Your task to perform on an android device: change keyboard looks Image 0: 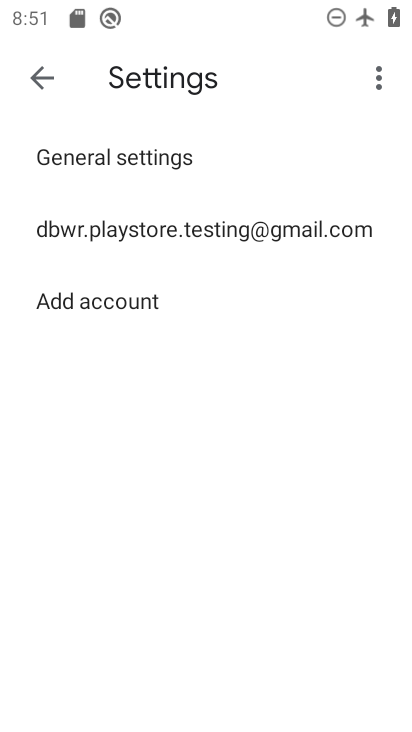
Step 0: drag from (302, 698) to (253, 153)
Your task to perform on an android device: change keyboard looks Image 1: 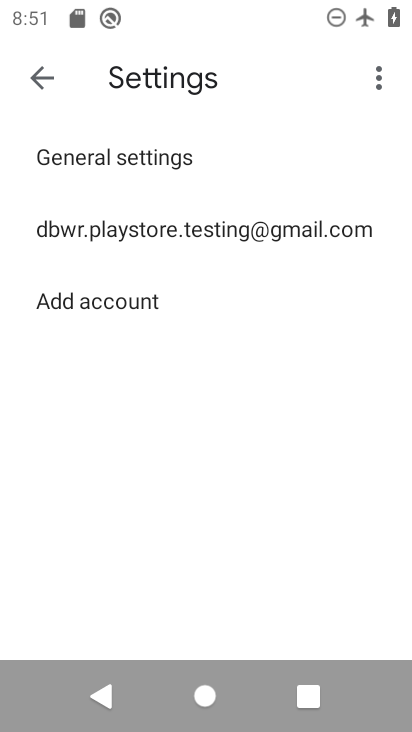
Step 1: click (41, 81)
Your task to perform on an android device: change keyboard looks Image 2: 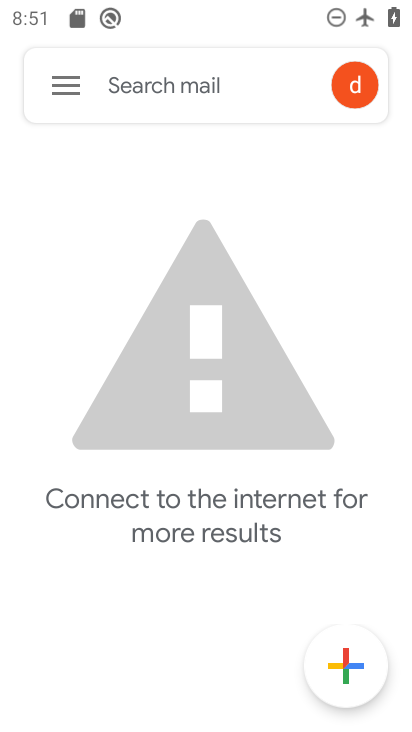
Step 2: press home button
Your task to perform on an android device: change keyboard looks Image 3: 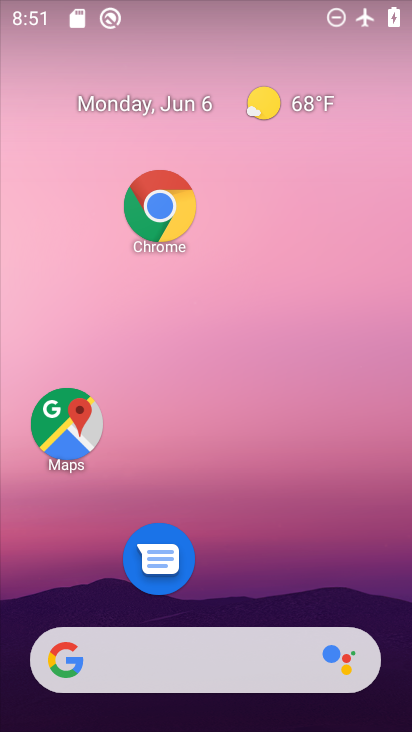
Step 3: drag from (238, 384) to (219, 209)
Your task to perform on an android device: change keyboard looks Image 4: 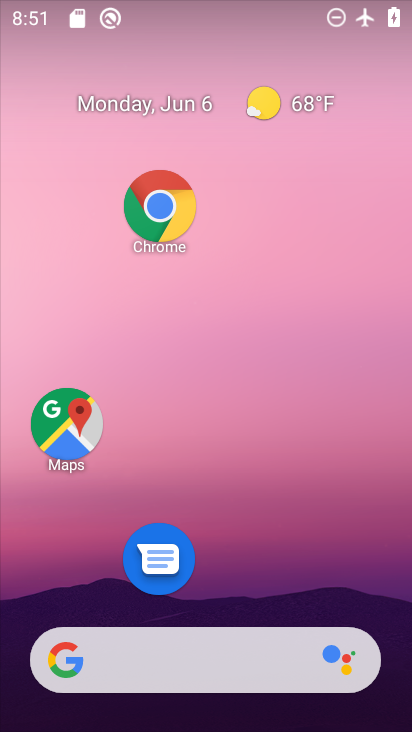
Step 4: drag from (289, 505) to (254, 163)
Your task to perform on an android device: change keyboard looks Image 5: 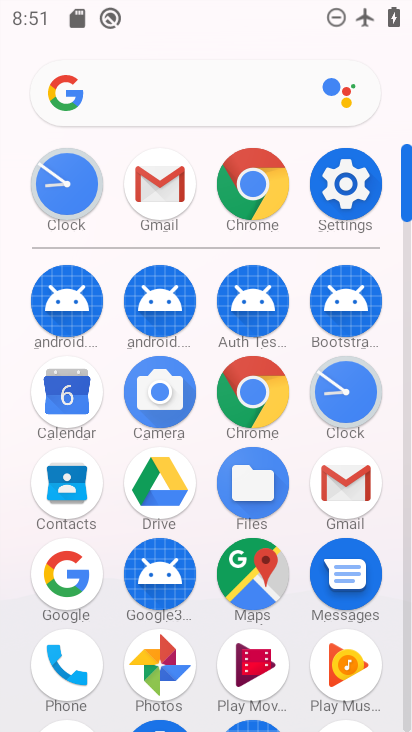
Step 5: click (350, 178)
Your task to perform on an android device: change keyboard looks Image 6: 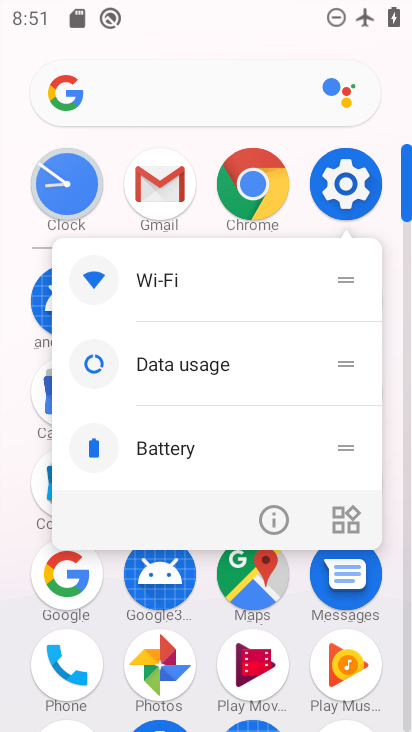
Step 6: click (347, 176)
Your task to perform on an android device: change keyboard looks Image 7: 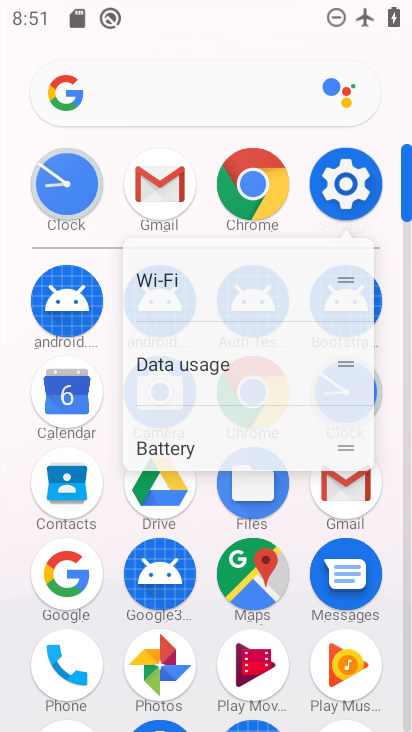
Step 7: click (348, 175)
Your task to perform on an android device: change keyboard looks Image 8: 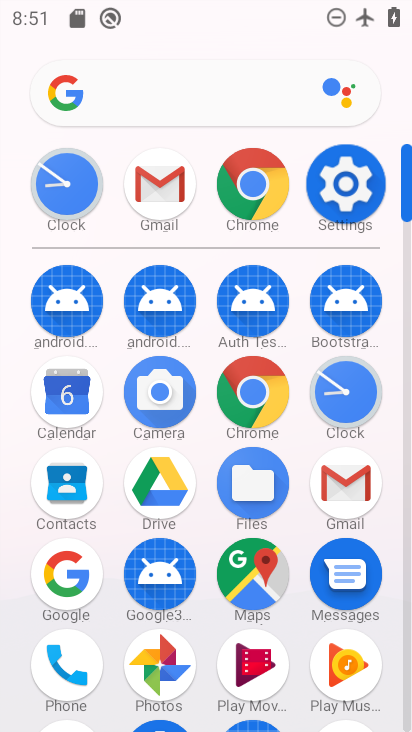
Step 8: click (349, 176)
Your task to perform on an android device: change keyboard looks Image 9: 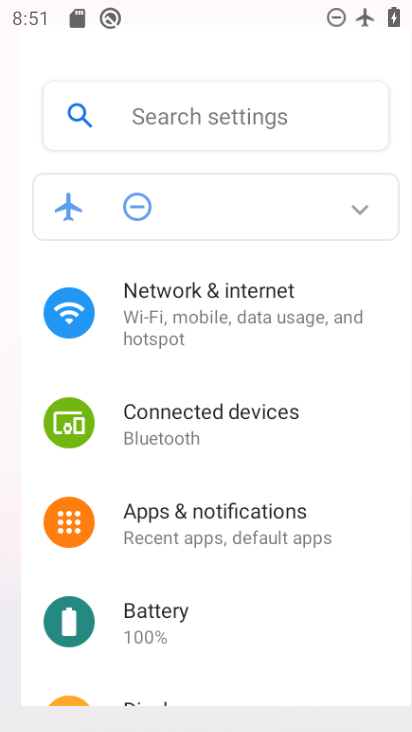
Step 9: click (347, 182)
Your task to perform on an android device: change keyboard looks Image 10: 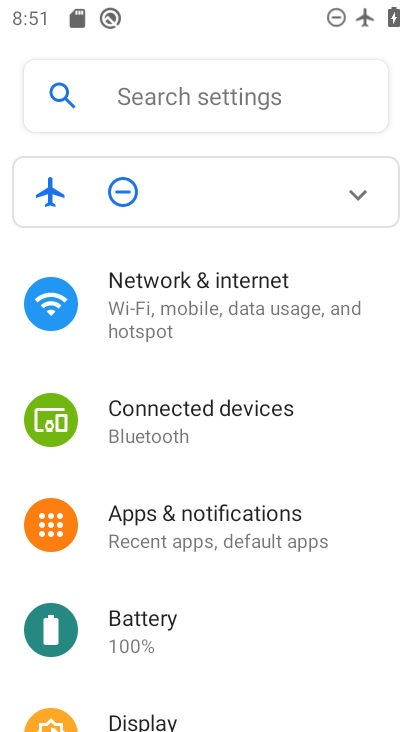
Step 10: click (348, 188)
Your task to perform on an android device: change keyboard looks Image 11: 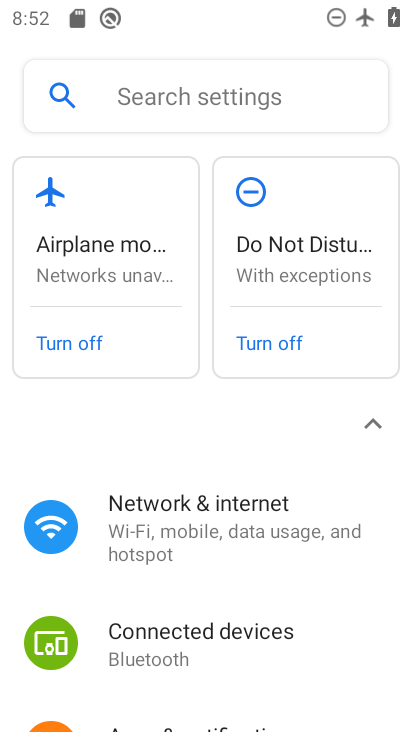
Step 11: drag from (221, 530) to (215, 187)
Your task to perform on an android device: change keyboard looks Image 12: 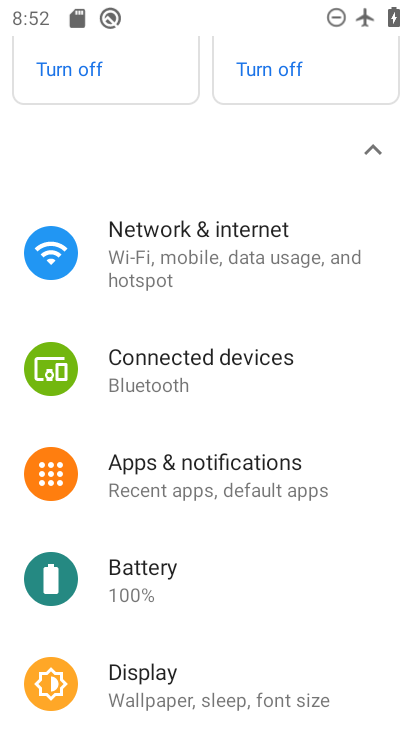
Step 12: drag from (221, 565) to (186, 251)
Your task to perform on an android device: change keyboard looks Image 13: 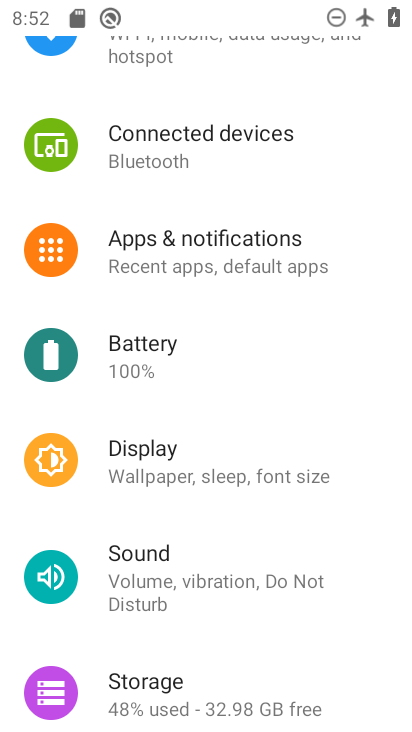
Step 13: drag from (198, 568) to (217, 207)
Your task to perform on an android device: change keyboard looks Image 14: 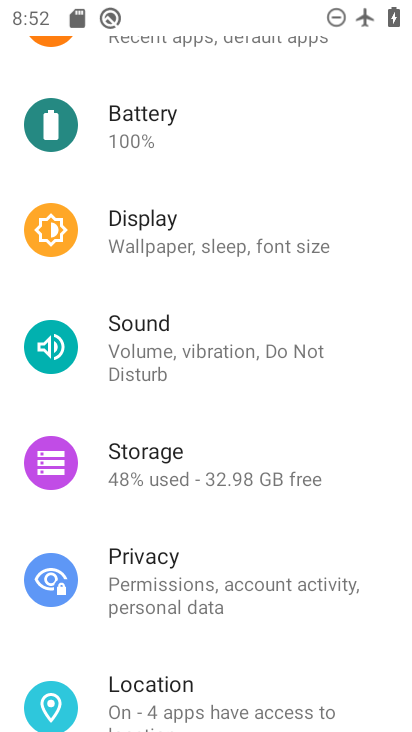
Step 14: drag from (229, 525) to (196, 162)
Your task to perform on an android device: change keyboard looks Image 15: 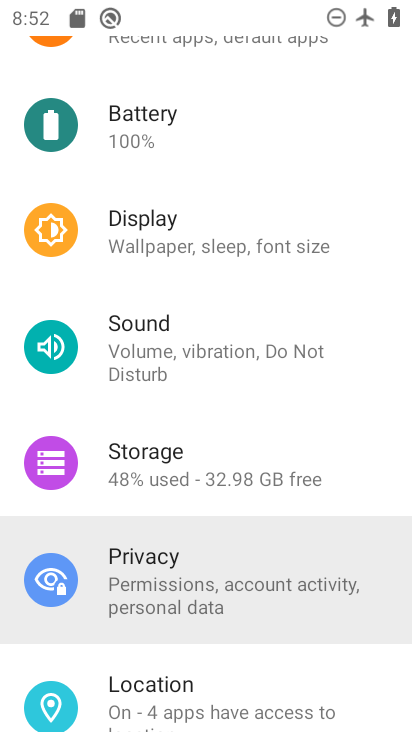
Step 15: drag from (192, 520) to (216, 237)
Your task to perform on an android device: change keyboard looks Image 16: 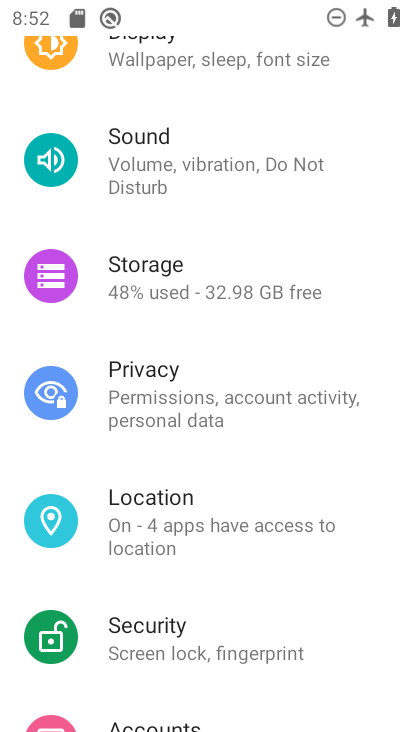
Step 16: drag from (200, 636) to (243, 259)
Your task to perform on an android device: change keyboard looks Image 17: 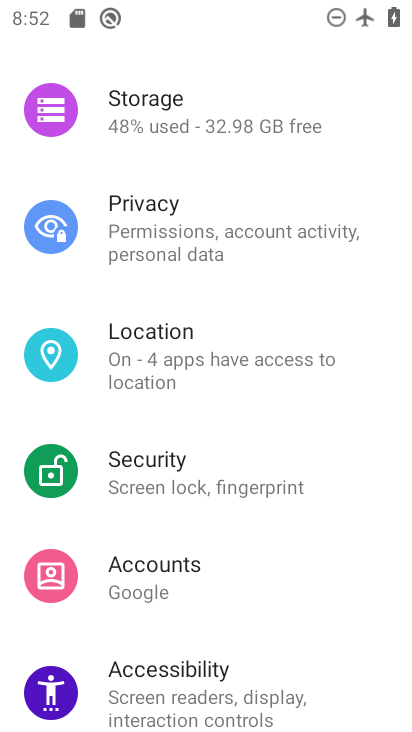
Step 17: drag from (243, 546) to (223, 186)
Your task to perform on an android device: change keyboard looks Image 18: 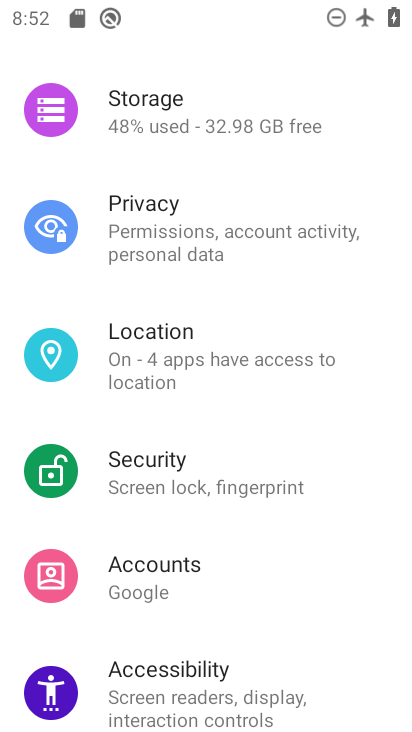
Step 18: drag from (264, 606) to (223, 242)
Your task to perform on an android device: change keyboard looks Image 19: 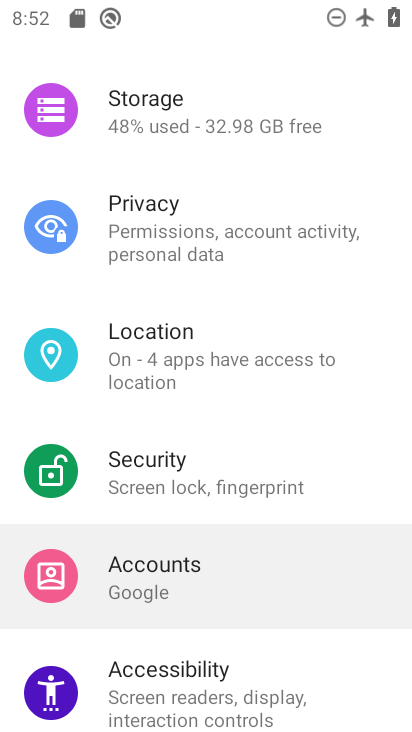
Step 19: click (134, 273)
Your task to perform on an android device: change keyboard looks Image 20: 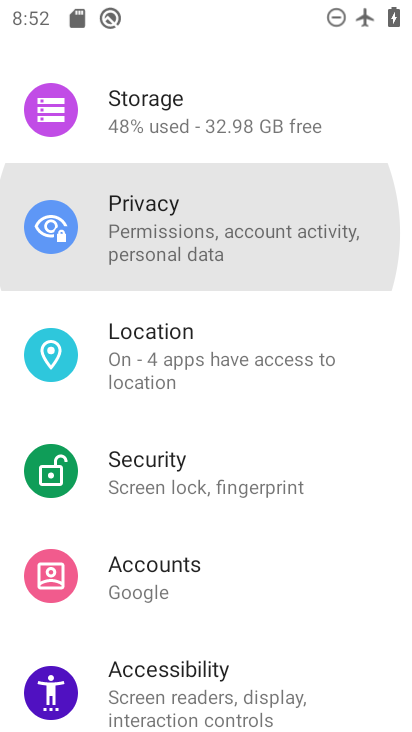
Step 20: drag from (212, 598) to (223, 243)
Your task to perform on an android device: change keyboard looks Image 21: 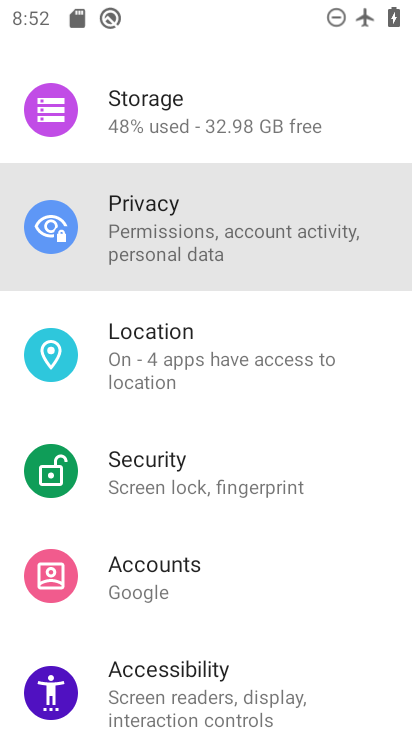
Step 21: drag from (241, 599) to (239, 252)
Your task to perform on an android device: change keyboard looks Image 22: 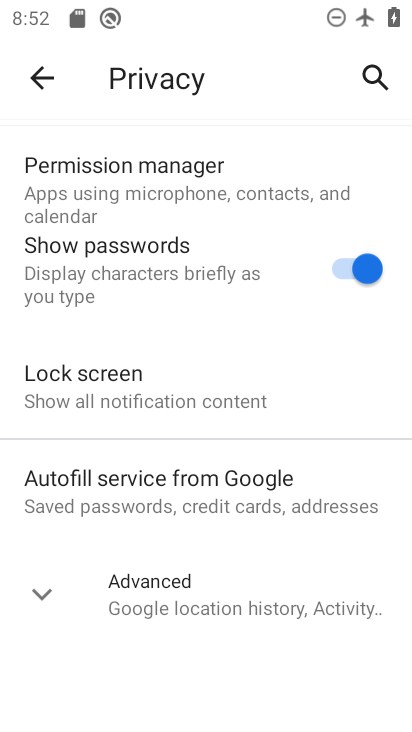
Step 22: drag from (271, 551) to (236, 366)
Your task to perform on an android device: change keyboard looks Image 23: 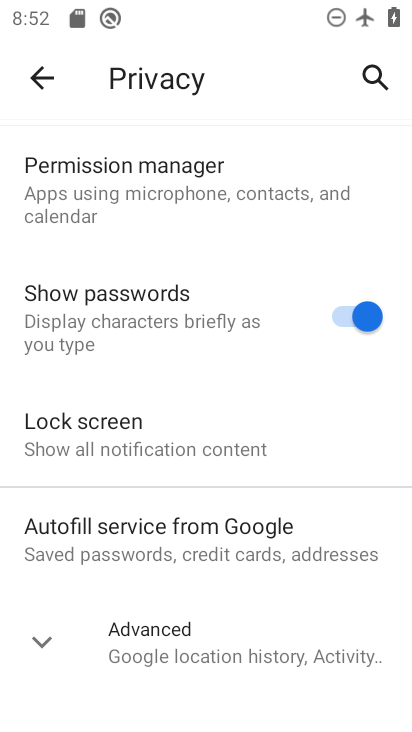
Step 23: click (35, 86)
Your task to perform on an android device: change keyboard looks Image 24: 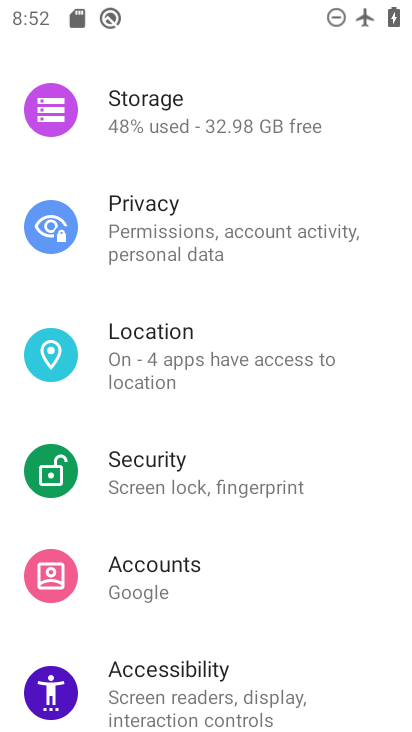
Step 24: drag from (189, 161) to (281, 491)
Your task to perform on an android device: change keyboard looks Image 25: 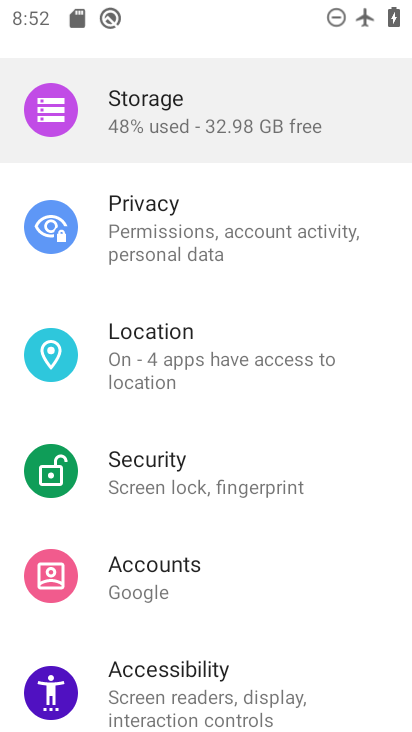
Step 25: drag from (186, 181) to (247, 489)
Your task to perform on an android device: change keyboard looks Image 26: 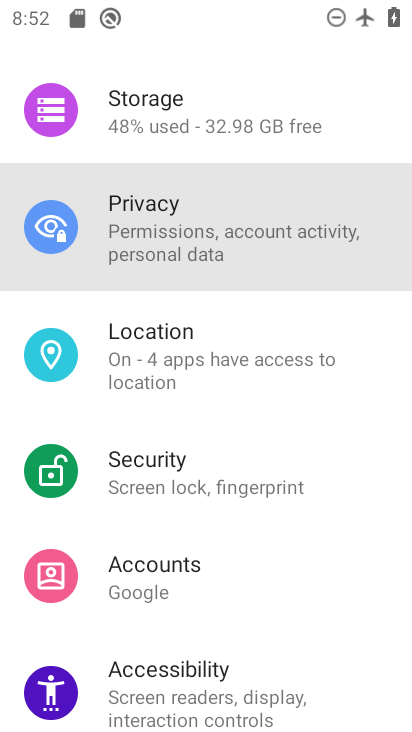
Step 26: drag from (220, 225) to (260, 544)
Your task to perform on an android device: change keyboard looks Image 27: 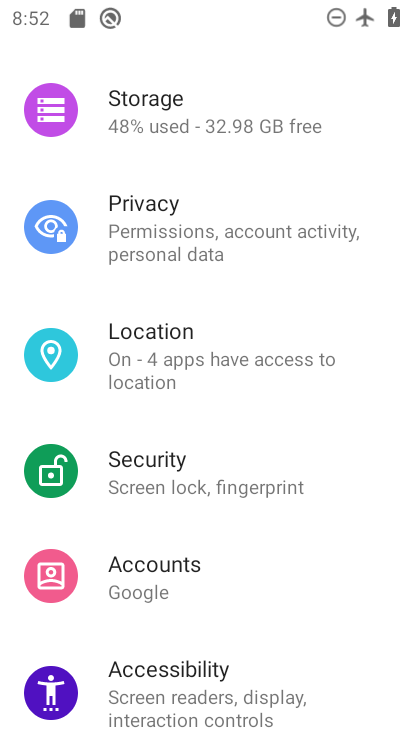
Step 27: drag from (229, 541) to (173, 172)
Your task to perform on an android device: change keyboard looks Image 28: 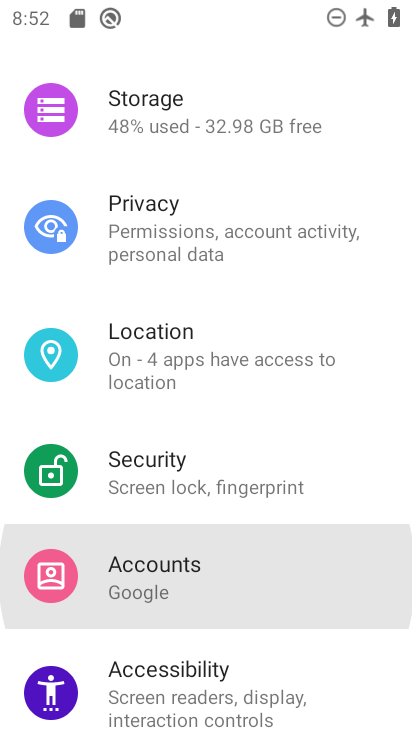
Step 28: drag from (224, 566) to (173, 277)
Your task to perform on an android device: change keyboard looks Image 29: 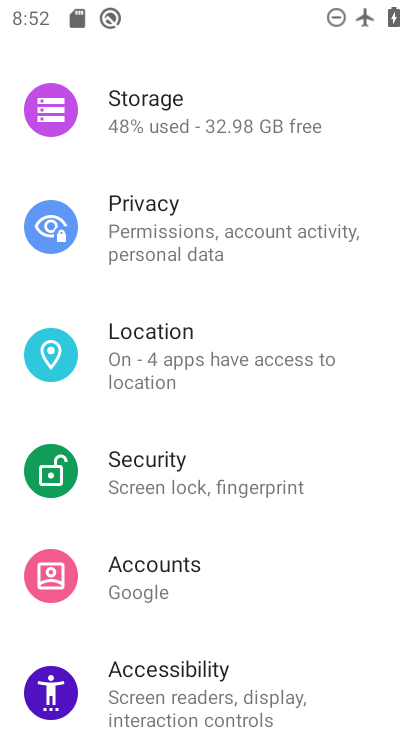
Step 29: drag from (191, 278) to (222, 658)
Your task to perform on an android device: change keyboard looks Image 30: 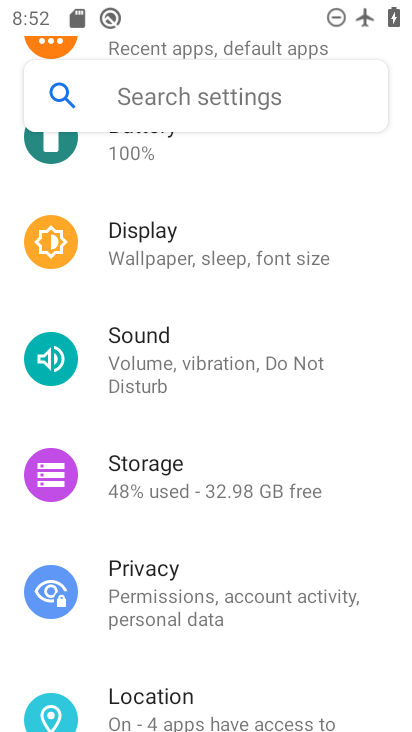
Step 30: click (258, 638)
Your task to perform on an android device: change keyboard looks Image 31: 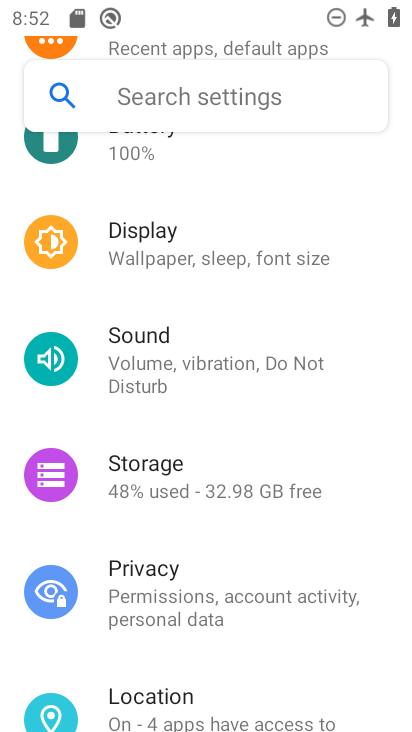
Step 31: drag from (251, 279) to (273, 549)
Your task to perform on an android device: change keyboard looks Image 32: 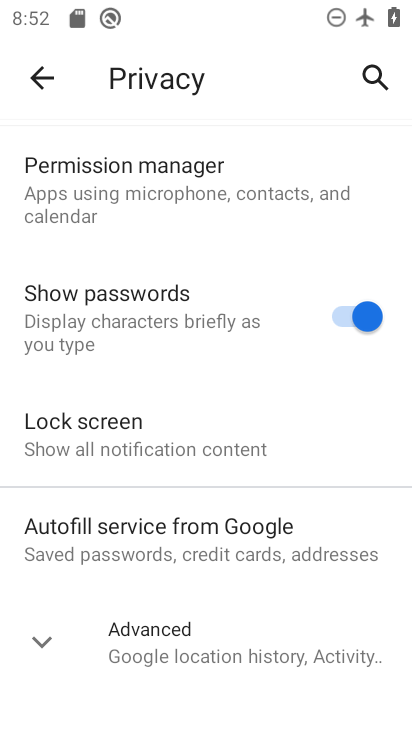
Step 32: click (35, 84)
Your task to perform on an android device: change keyboard looks Image 33: 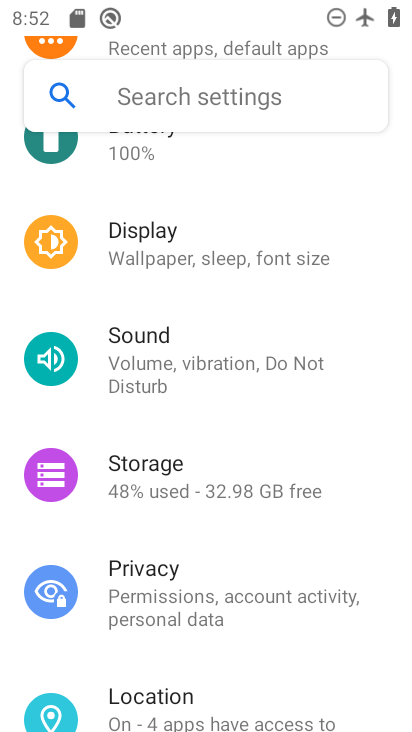
Step 33: drag from (175, 498) to (164, 166)
Your task to perform on an android device: change keyboard looks Image 34: 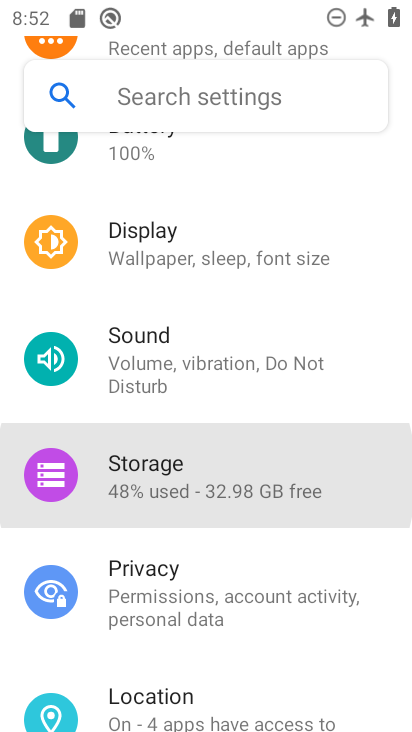
Step 34: drag from (213, 544) to (206, 239)
Your task to perform on an android device: change keyboard looks Image 35: 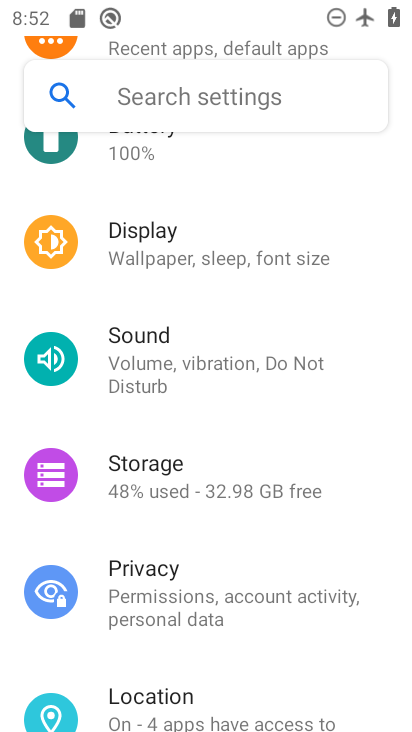
Step 35: drag from (183, 635) to (145, 241)
Your task to perform on an android device: change keyboard looks Image 36: 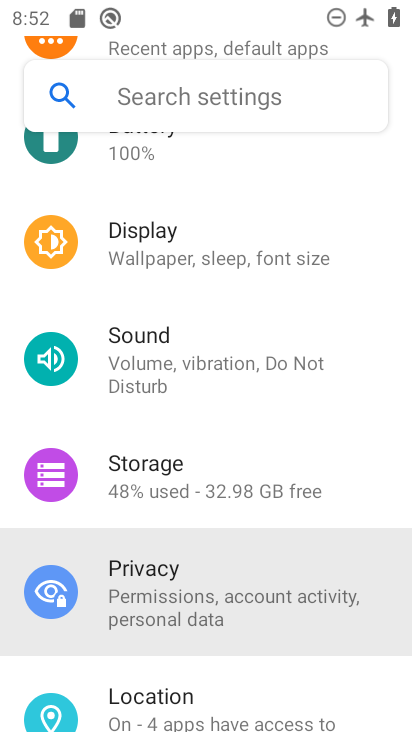
Step 36: drag from (186, 585) to (172, 377)
Your task to perform on an android device: change keyboard looks Image 37: 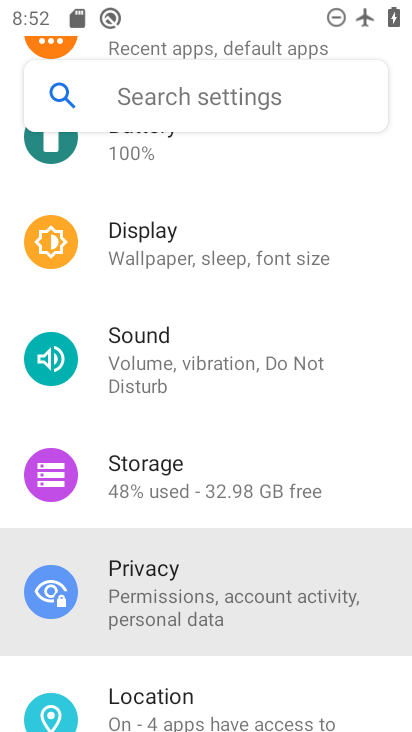
Step 37: drag from (238, 622) to (240, 236)
Your task to perform on an android device: change keyboard looks Image 38: 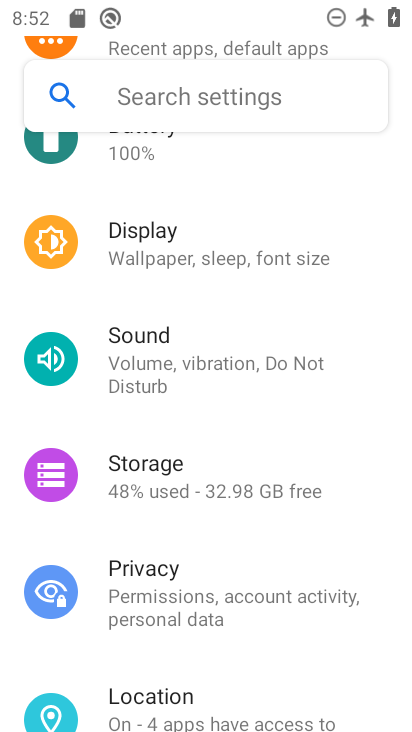
Step 38: drag from (303, 390) to (314, 142)
Your task to perform on an android device: change keyboard looks Image 39: 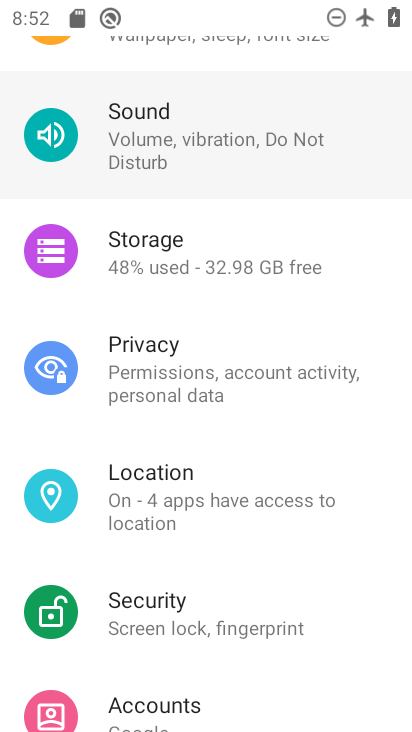
Step 39: drag from (248, 536) to (254, 271)
Your task to perform on an android device: change keyboard looks Image 40: 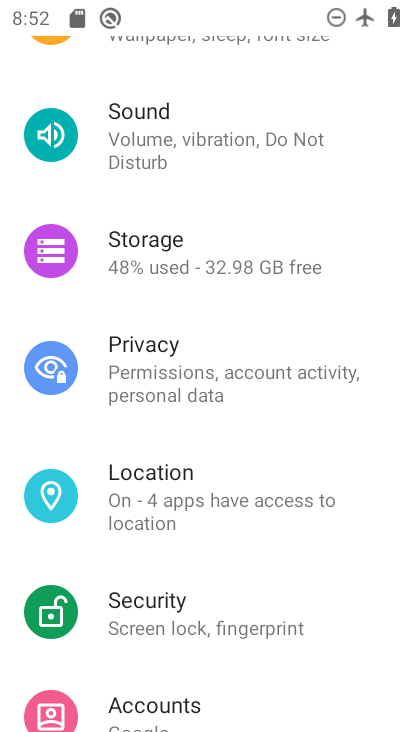
Step 40: drag from (291, 552) to (255, 181)
Your task to perform on an android device: change keyboard looks Image 41: 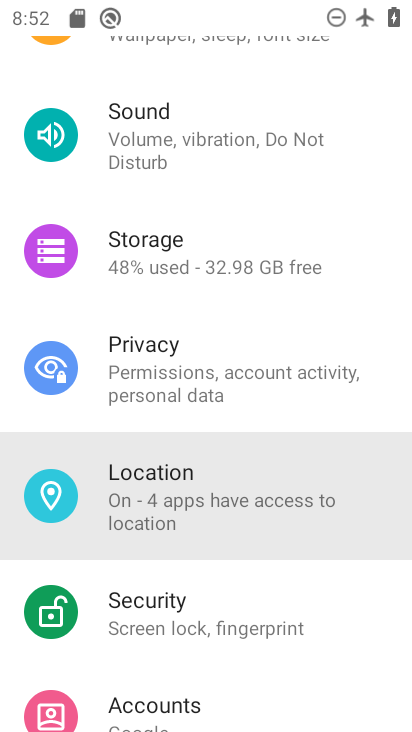
Step 41: drag from (156, 625) to (155, 310)
Your task to perform on an android device: change keyboard looks Image 42: 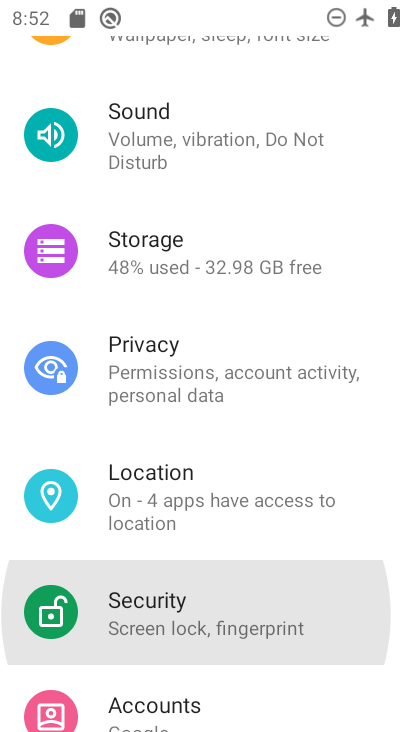
Step 42: drag from (165, 579) to (159, 260)
Your task to perform on an android device: change keyboard looks Image 43: 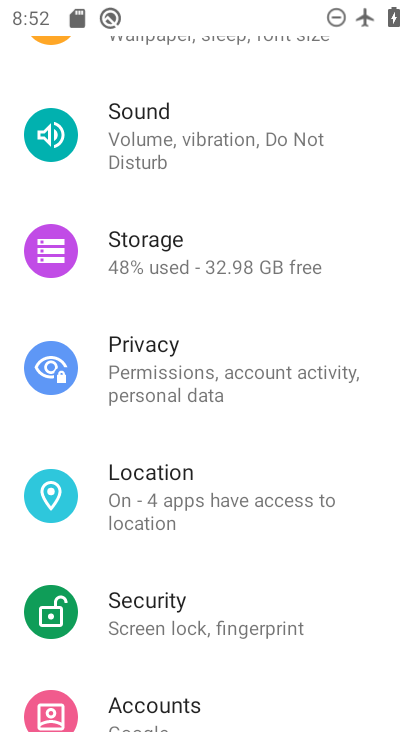
Step 43: drag from (234, 661) to (207, 220)
Your task to perform on an android device: change keyboard looks Image 44: 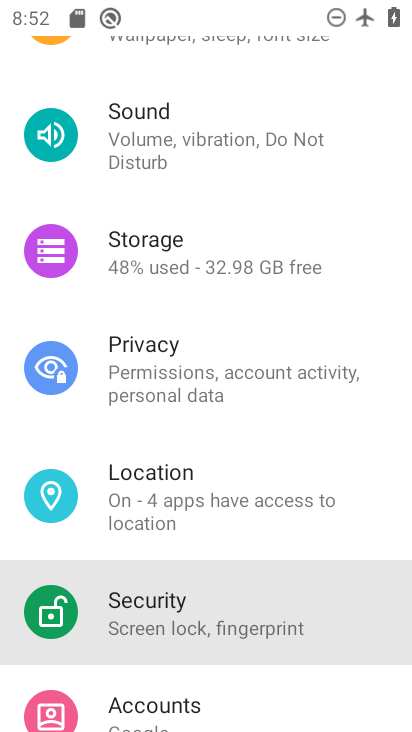
Step 44: drag from (221, 548) to (154, 239)
Your task to perform on an android device: change keyboard looks Image 45: 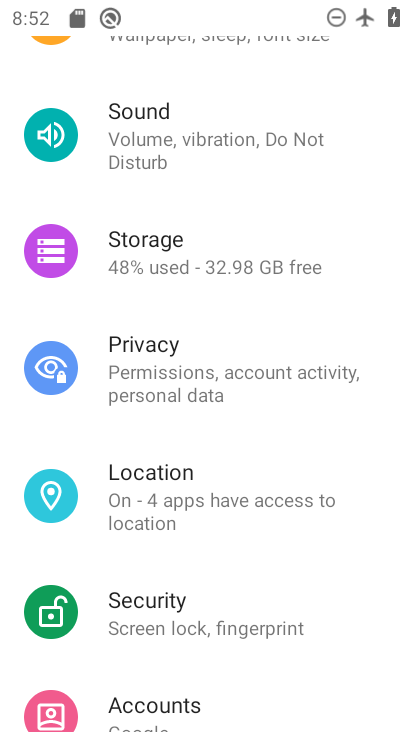
Step 45: drag from (213, 407) to (117, 110)
Your task to perform on an android device: change keyboard looks Image 46: 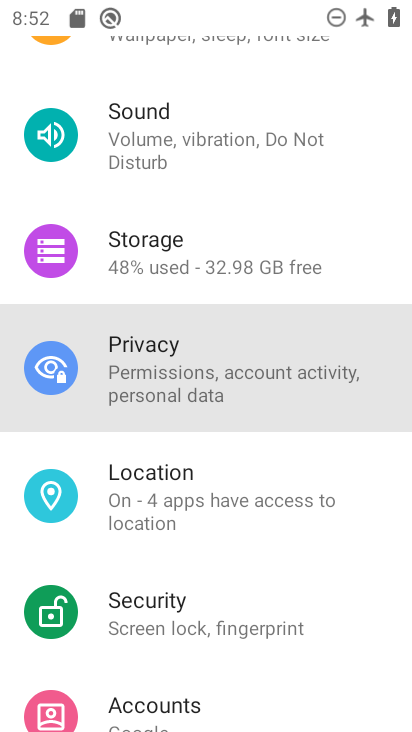
Step 46: drag from (201, 531) to (142, 6)
Your task to perform on an android device: change keyboard looks Image 47: 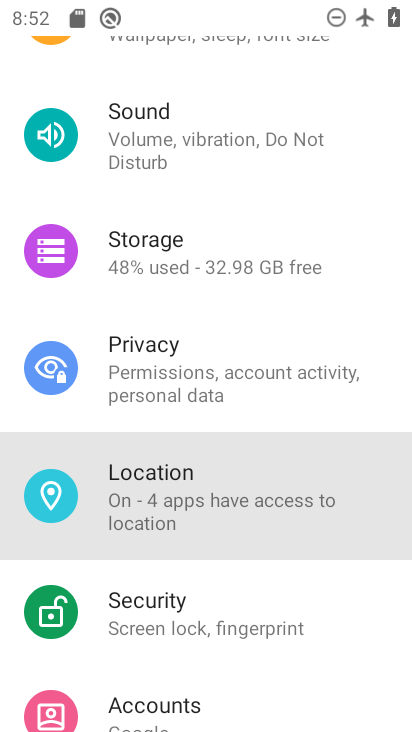
Step 47: drag from (225, 527) to (216, 108)
Your task to perform on an android device: change keyboard looks Image 48: 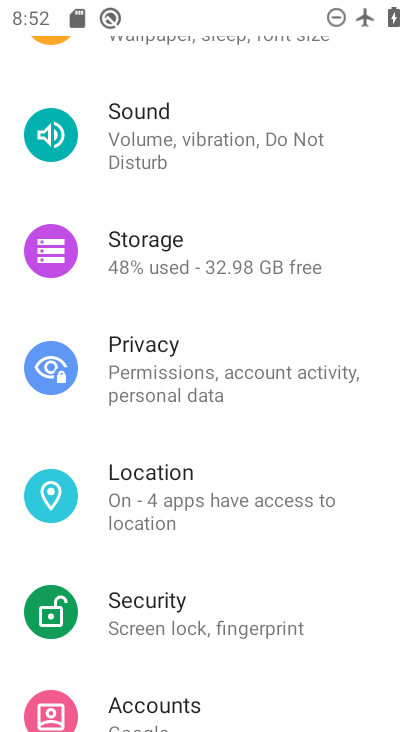
Step 48: drag from (268, 624) to (219, 169)
Your task to perform on an android device: change keyboard looks Image 49: 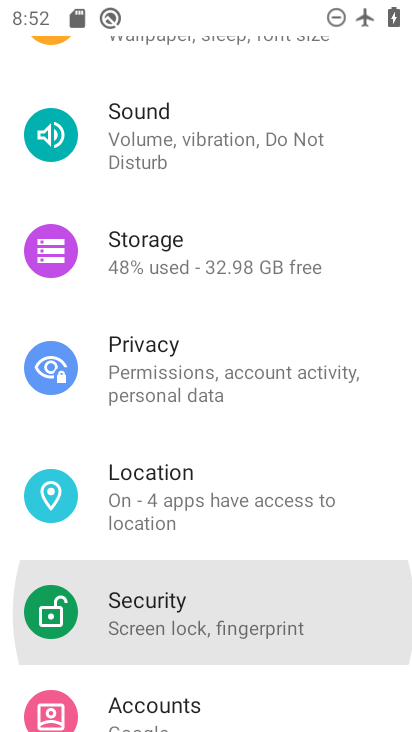
Step 49: drag from (245, 493) to (216, 48)
Your task to perform on an android device: change keyboard looks Image 50: 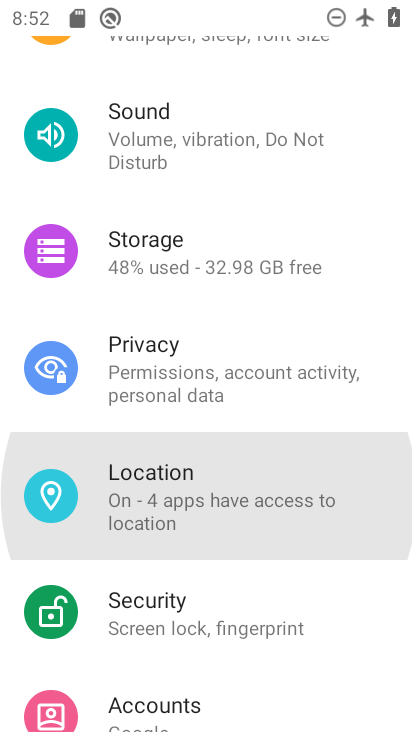
Step 50: drag from (219, 451) to (243, 53)
Your task to perform on an android device: change keyboard looks Image 51: 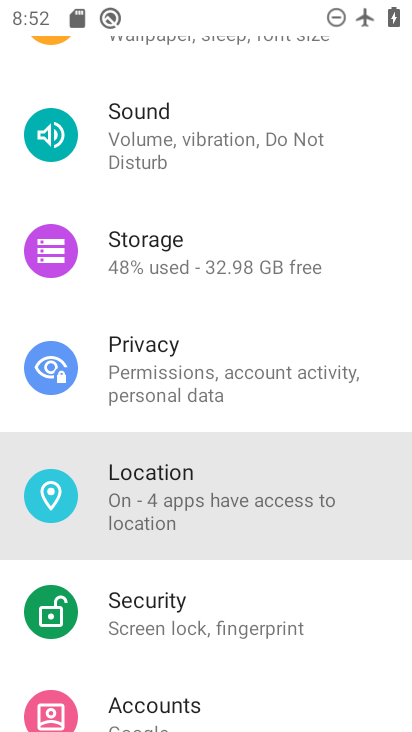
Step 51: drag from (218, 631) to (227, 93)
Your task to perform on an android device: change keyboard looks Image 52: 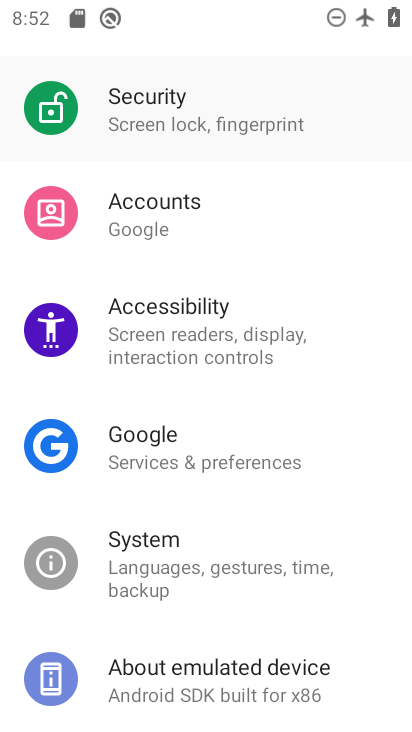
Step 52: drag from (174, 558) to (129, 152)
Your task to perform on an android device: change keyboard looks Image 53: 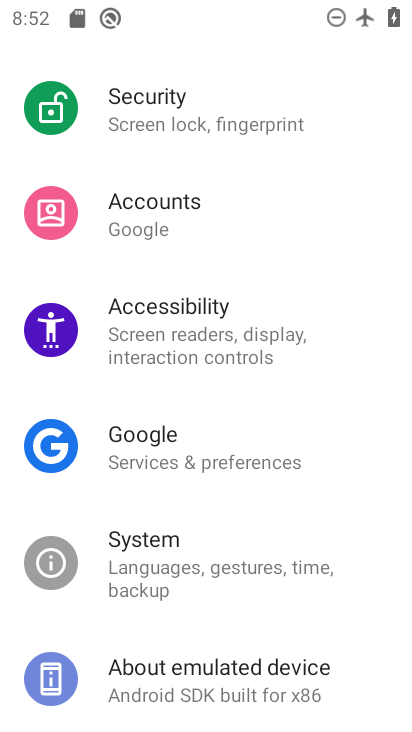
Step 53: click (165, 558)
Your task to perform on an android device: change keyboard looks Image 54: 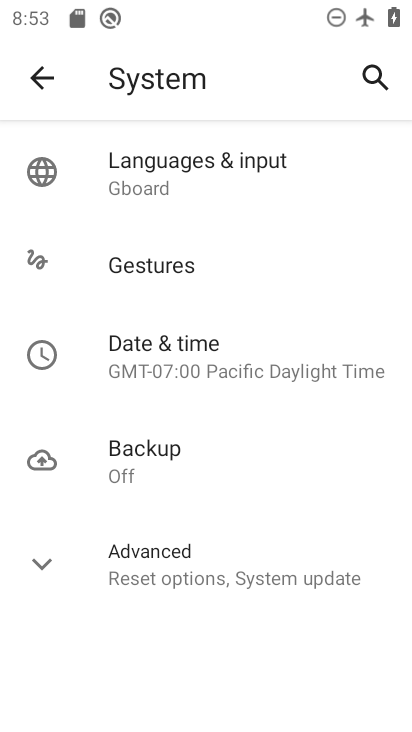
Step 54: click (150, 182)
Your task to perform on an android device: change keyboard looks Image 55: 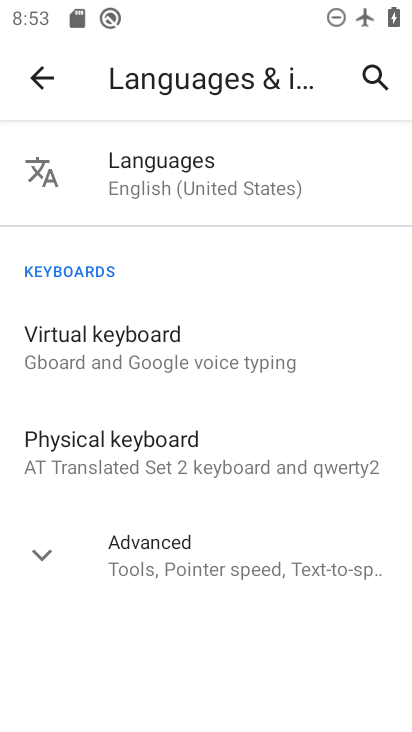
Step 55: click (73, 347)
Your task to perform on an android device: change keyboard looks Image 56: 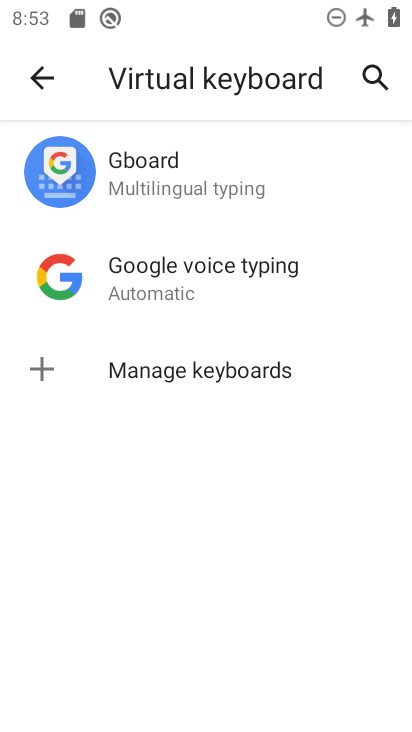
Step 56: click (112, 190)
Your task to perform on an android device: change keyboard looks Image 57: 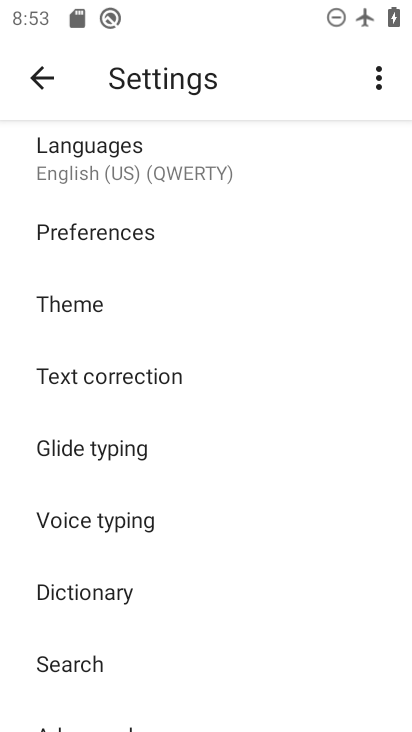
Step 57: click (83, 306)
Your task to perform on an android device: change keyboard looks Image 58: 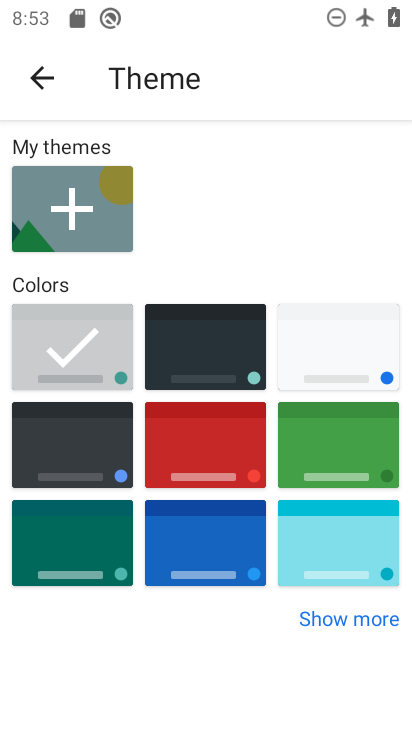
Step 58: click (172, 447)
Your task to perform on an android device: change keyboard looks Image 59: 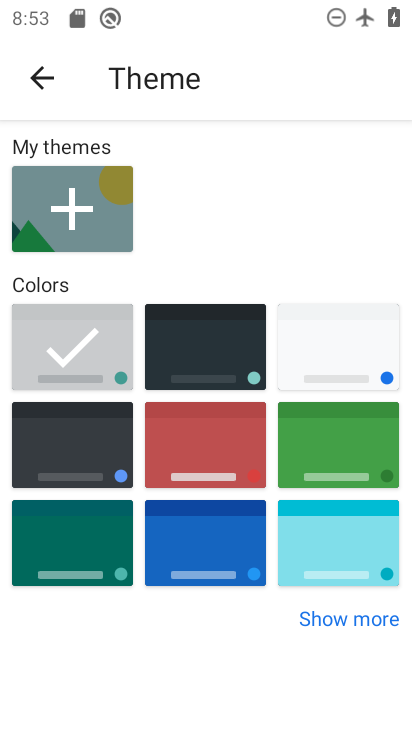
Step 59: click (170, 446)
Your task to perform on an android device: change keyboard looks Image 60: 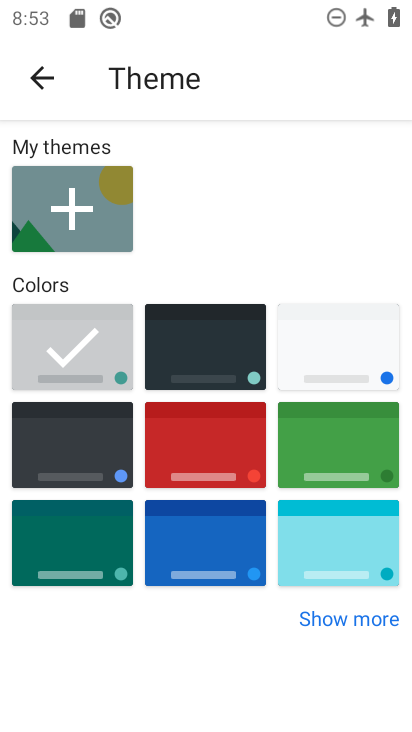
Step 60: click (176, 463)
Your task to perform on an android device: change keyboard looks Image 61: 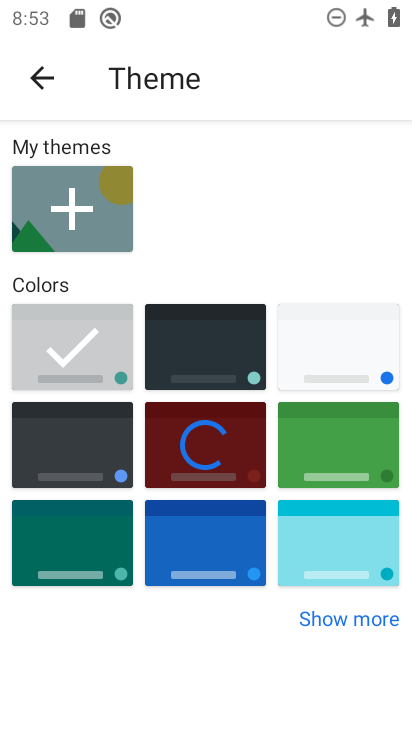
Step 61: click (177, 472)
Your task to perform on an android device: change keyboard looks Image 62: 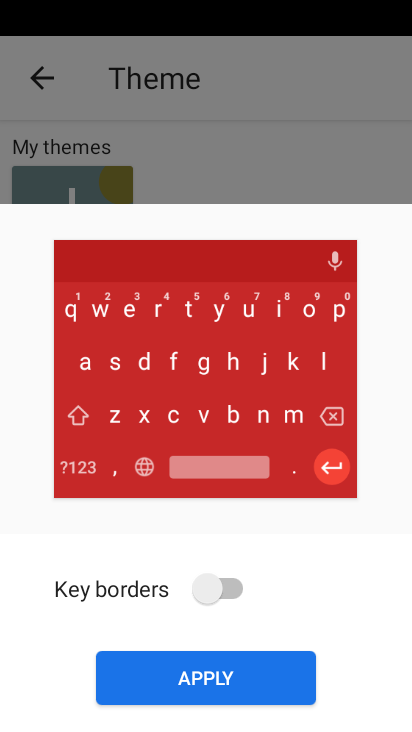
Step 62: click (201, 672)
Your task to perform on an android device: change keyboard looks Image 63: 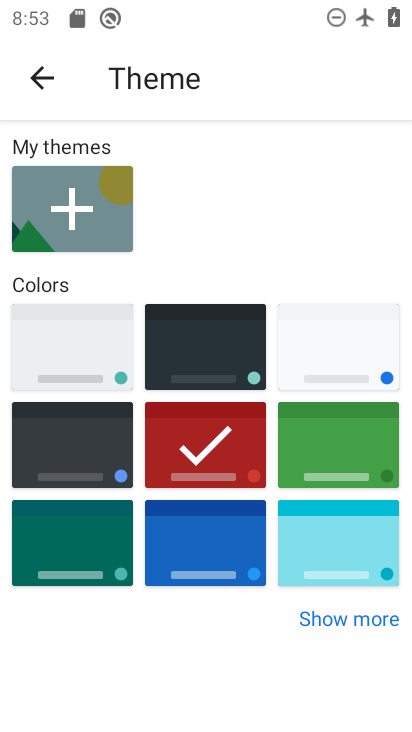
Step 63: task complete